Your task to perform on an android device: delete browsing data in the chrome app Image 0: 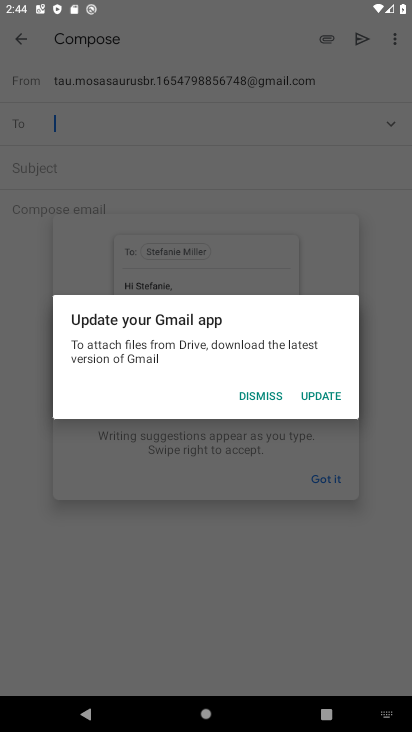
Step 0: press home button
Your task to perform on an android device: delete browsing data in the chrome app Image 1: 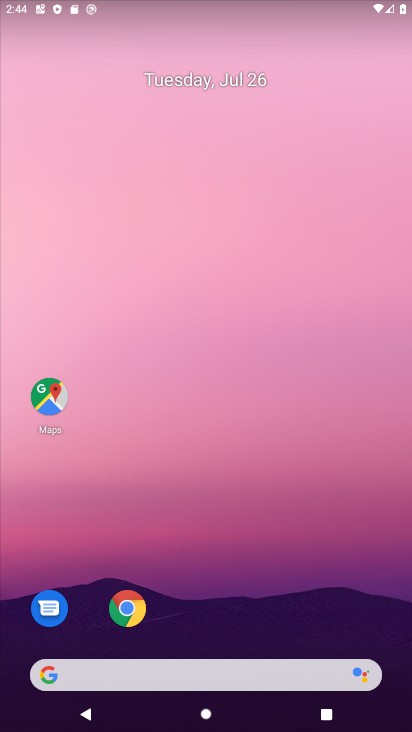
Step 1: click (260, 550)
Your task to perform on an android device: delete browsing data in the chrome app Image 2: 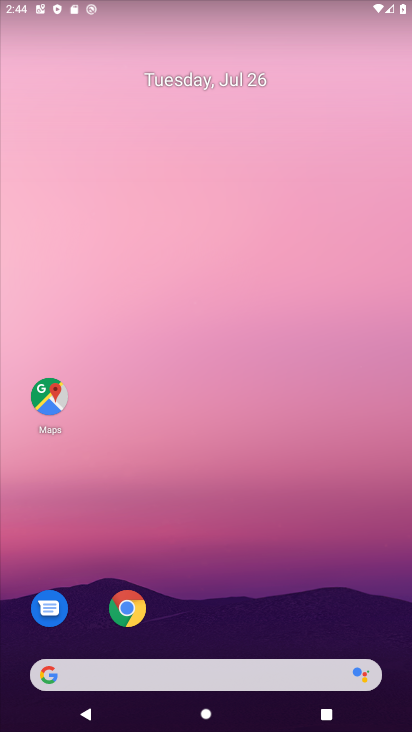
Step 2: click (121, 614)
Your task to perform on an android device: delete browsing data in the chrome app Image 3: 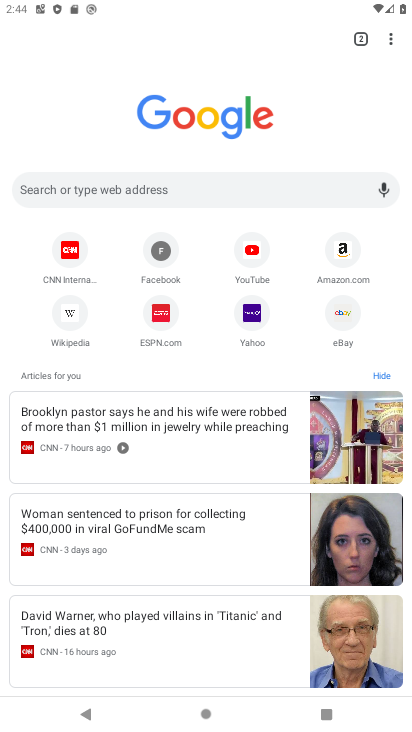
Step 3: click (393, 32)
Your task to perform on an android device: delete browsing data in the chrome app Image 4: 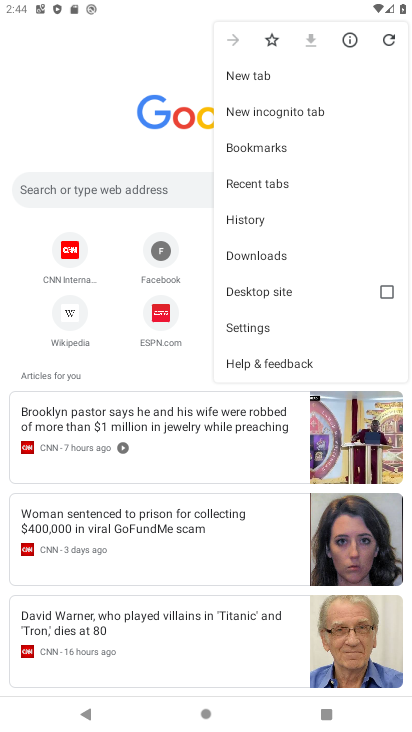
Step 4: click (260, 224)
Your task to perform on an android device: delete browsing data in the chrome app Image 5: 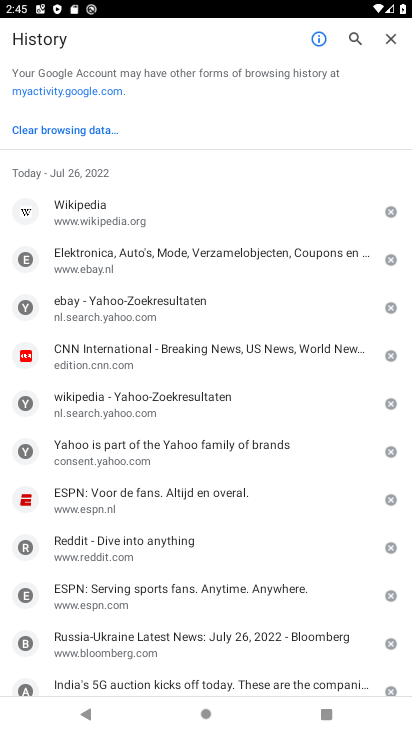
Step 5: click (63, 126)
Your task to perform on an android device: delete browsing data in the chrome app Image 6: 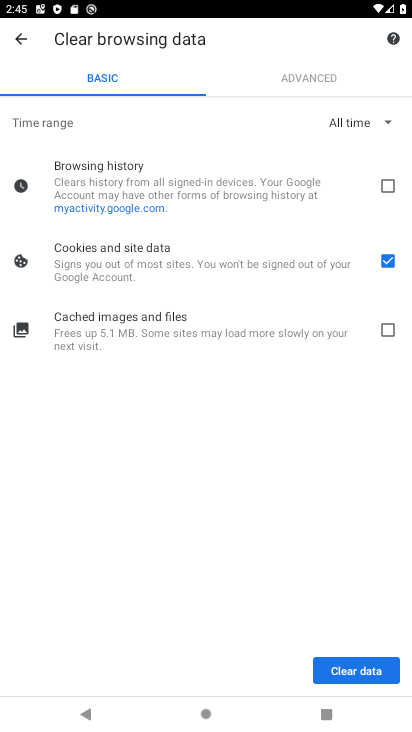
Step 6: click (395, 184)
Your task to perform on an android device: delete browsing data in the chrome app Image 7: 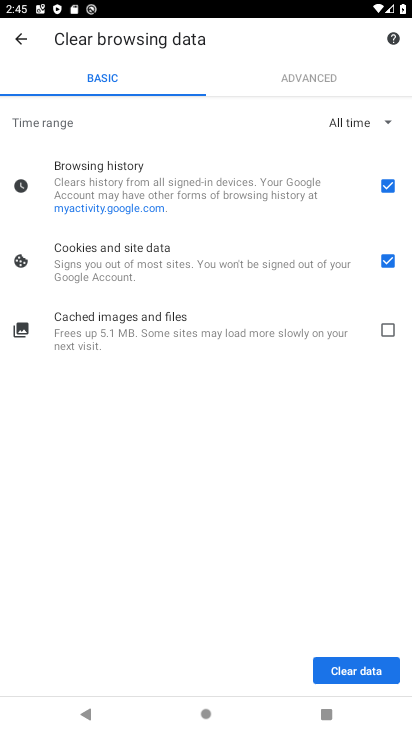
Step 7: click (385, 258)
Your task to perform on an android device: delete browsing data in the chrome app Image 8: 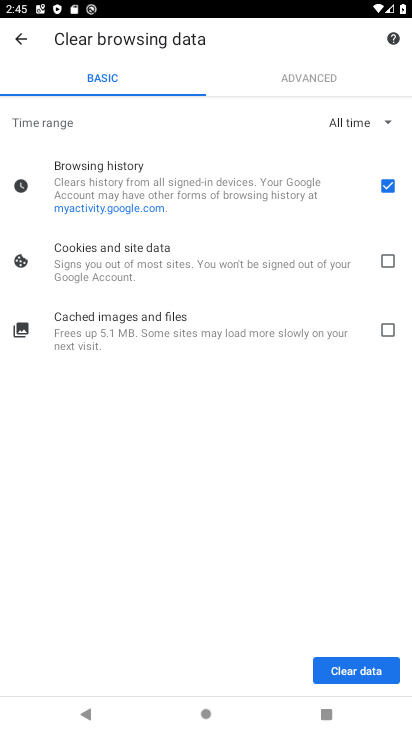
Step 8: click (349, 672)
Your task to perform on an android device: delete browsing data in the chrome app Image 9: 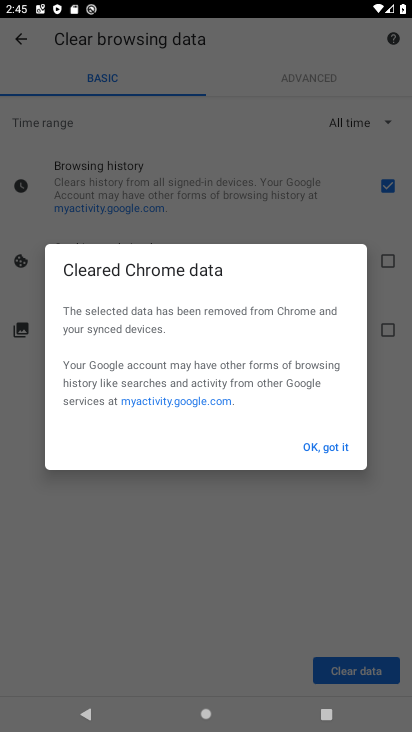
Step 9: click (342, 441)
Your task to perform on an android device: delete browsing data in the chrome app Image 10: 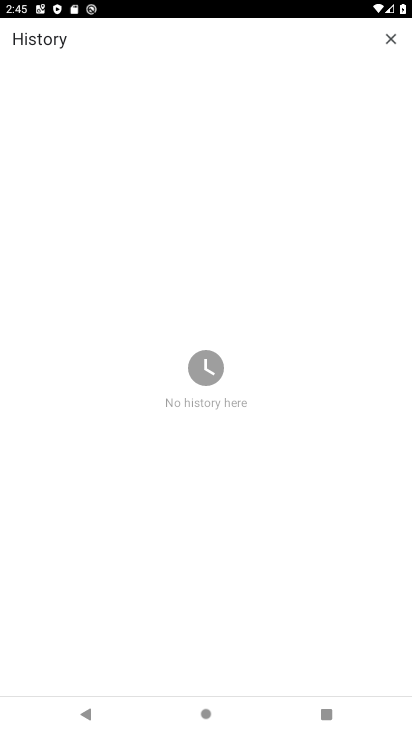
Step 10: press home button
Your task to perform on an android device: delete browsing data in the chrome app Image 11: 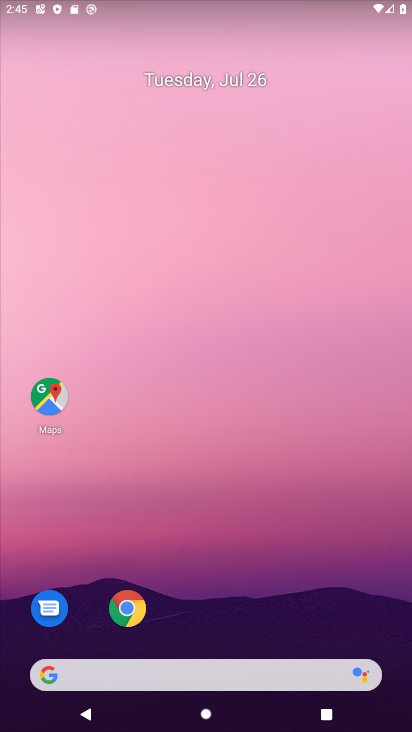
Step 11: click (136, 609)
Your task to perform on an android device: delete browsing data in the chrome app Image 12: 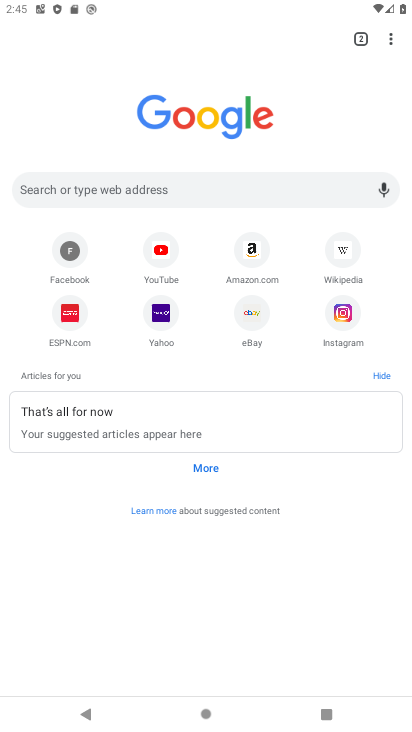
Step 12: click (391, 40)
Your task to perform on an android device: delete browsing data in the chrome app Image 13: 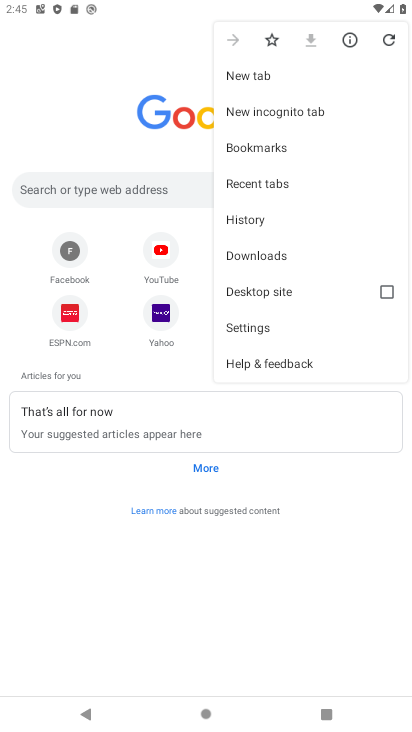
Step 13: click (274, 221)
Your task to perform on an android device: delete browsing data in the chrome app Image 14: 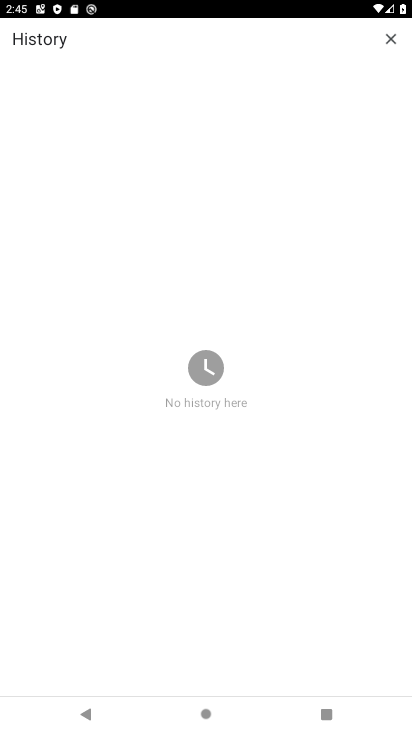
Step 14: task complete